Your task to perform on an android device: Open Chrome and go to settings Image 0: 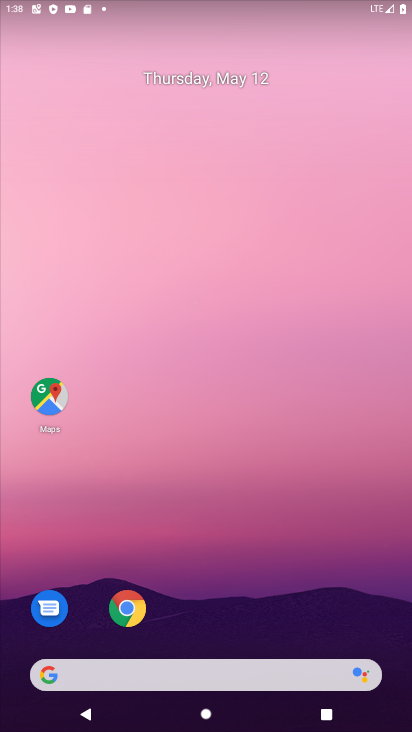
Step 0: click (138, 613)
Your task to perform on an android device: Open Chrome and go to settings Image 1: 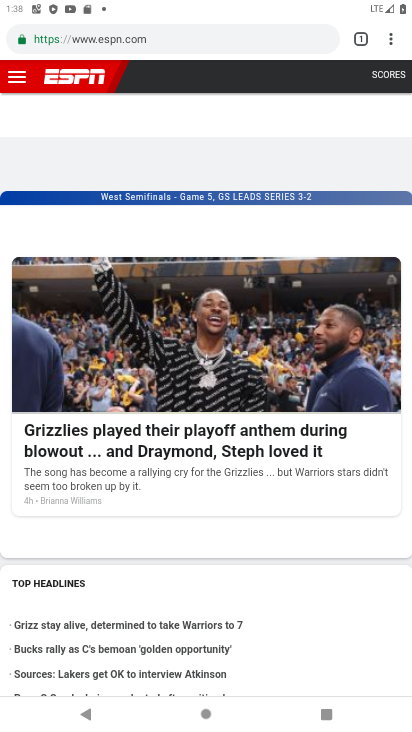
Step 1: click (390, 44)
Your task to perform on an android device: Open Chrome and go to settings Image 2: 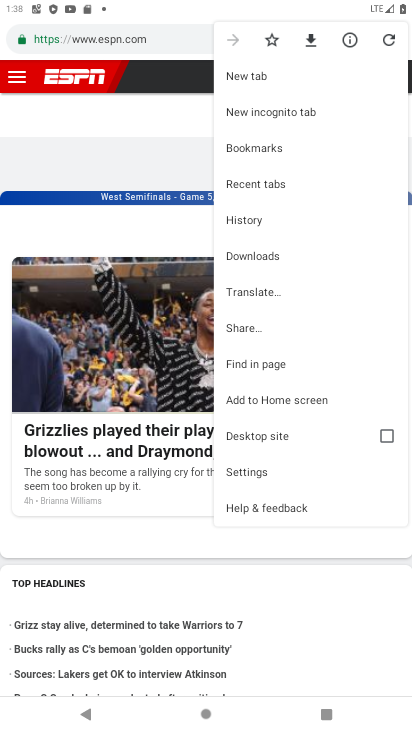
Step 2: click (262, 470)
Your task to perform on an android device: Open Chrome and go to settings Image 3: 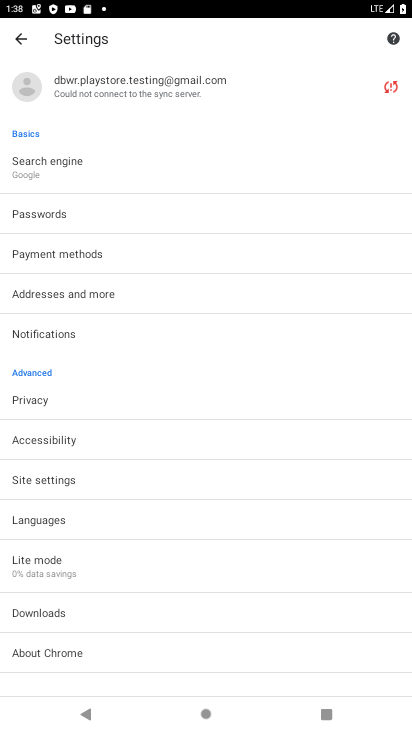
Step 3: task complete